Your task to perform on an android device: open app "Google Find My Device" (install if not already installed) Image 0: 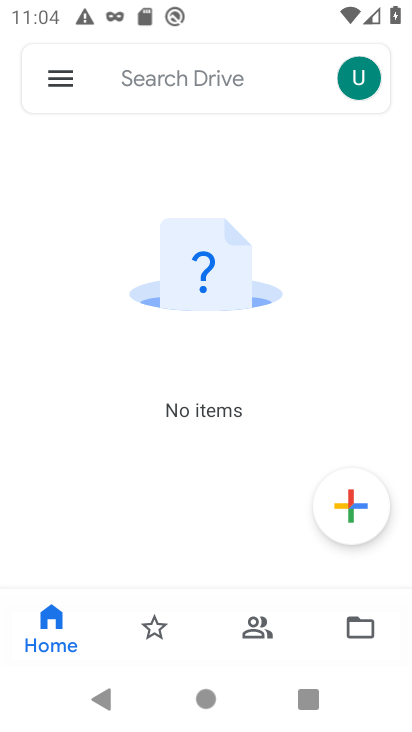
Step 0: press home button
Your task to perform on an android device: open app "Google Find My Device" (install if not already installed) Image 1: 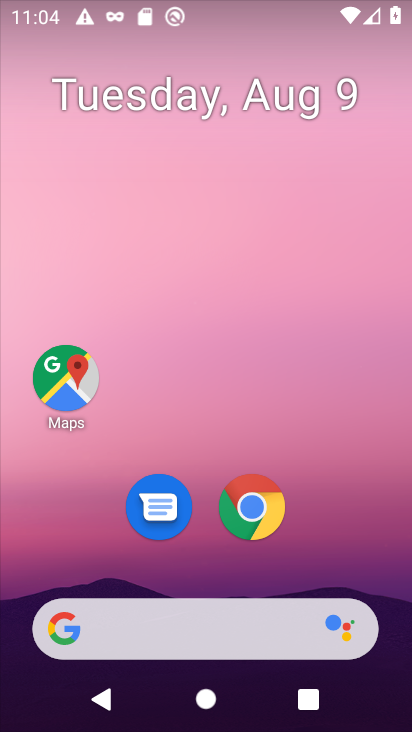
Step 1: drag from (166, 623) to (231, 98)
Your task to perform on an android device: open app "Google Find My Device" (install if not already installed) Image 2: 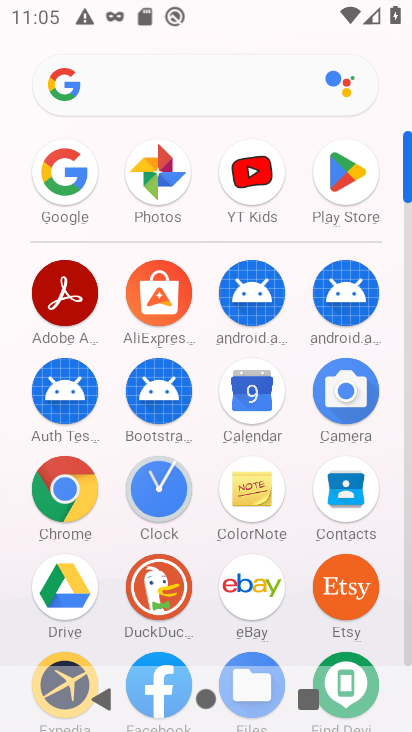
Step 2: click (345, 177)
Your task to perform on an android device: open app "Google Find My Device" (install if not already installed) Image 3: 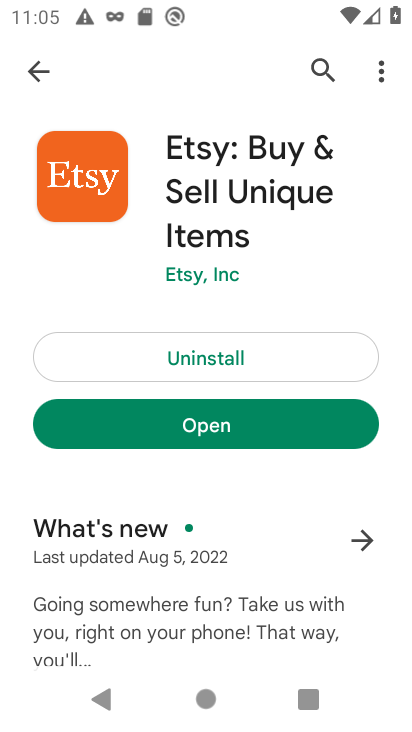
Step 3: click (315, 72)
Your task to perform on an android device: open app "Google Find My Device" (install if not already installed) Image 4: 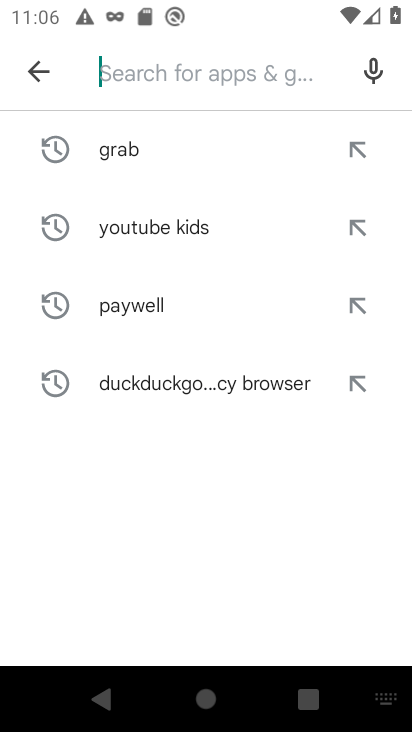
Step 4: type "Google Find My  Device"
Your task to perform on an android device: open app "Google Find My Device" (install if not already installed) Image 5: 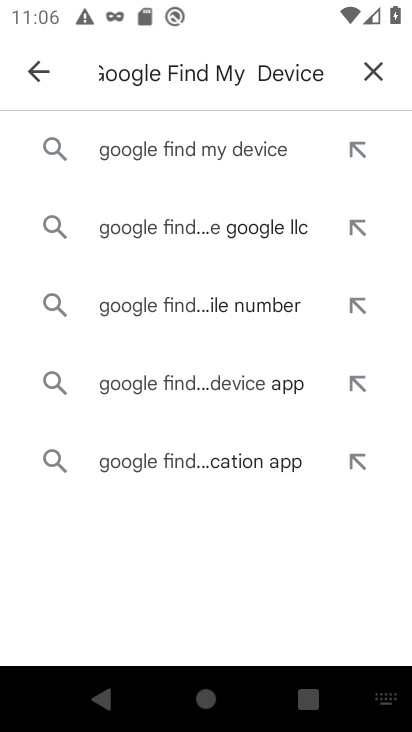
Step 5: click (156, 159)
Your task to perform on an android device: open app "Google Find My Device" (install if not already installed) Image 6: 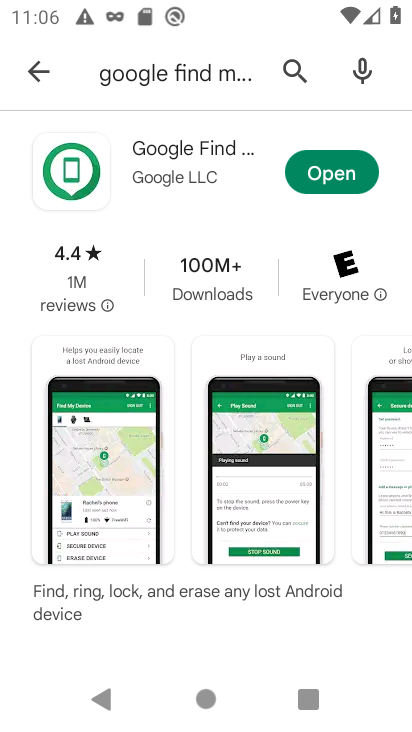
Step 6: click (342, 176)
Your task to perform on an android device: open app "Google Find My Device" (install if not already installed) Image 7: 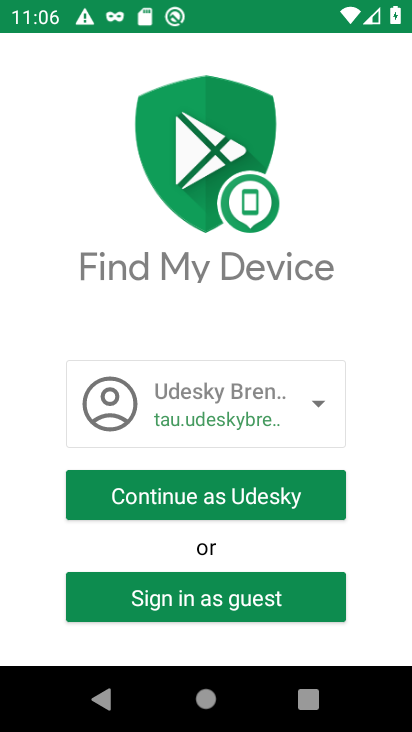
Step 7: task complete